Your task to perform on an android device: When is my next appointment? Image 0: 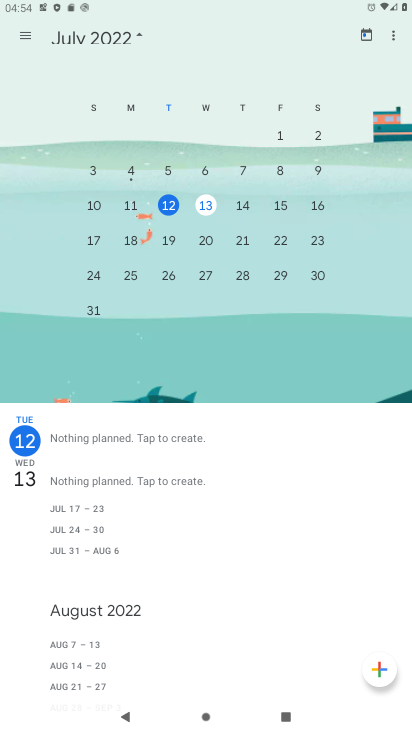
Step 0: press home button
Your task to perform on an android device: When is my next appointment? Image 1: 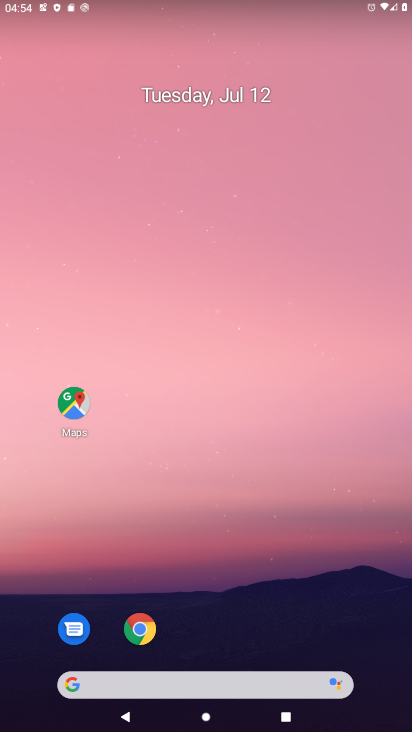
Step 1: drag from (242, 644) to (267, 87)
Your task to perform on an android device: When is my next appointment? Image 2: 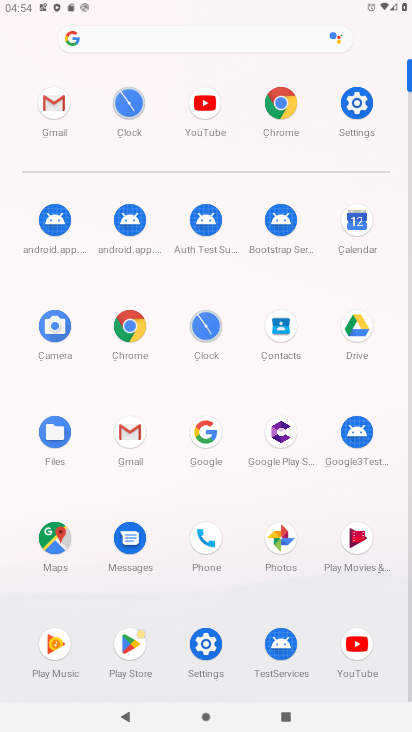
Step 2: click (364, 230)
Your task to perform on an android device: When is my next appointment? Image 3: 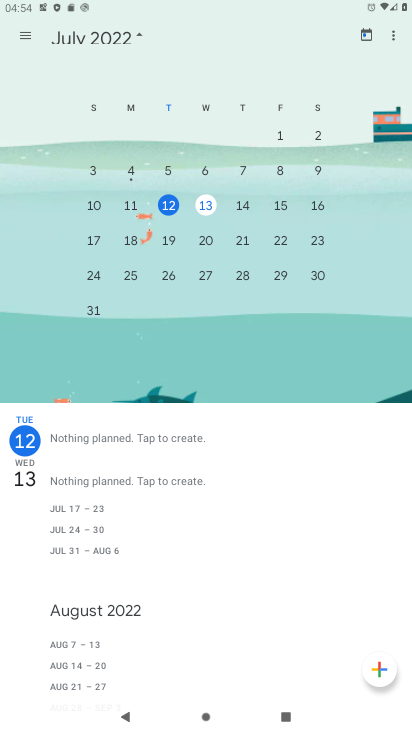
Step 3: click (22, 29)
Your task to perform on an android device: When is my next appointment? Image 4: 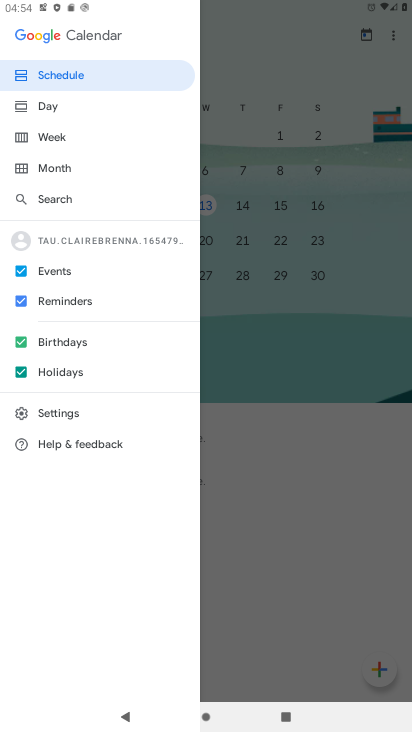
Step 4: click (45, 82)
Your task to perform on an android device: When is my next appointment? Image 5: 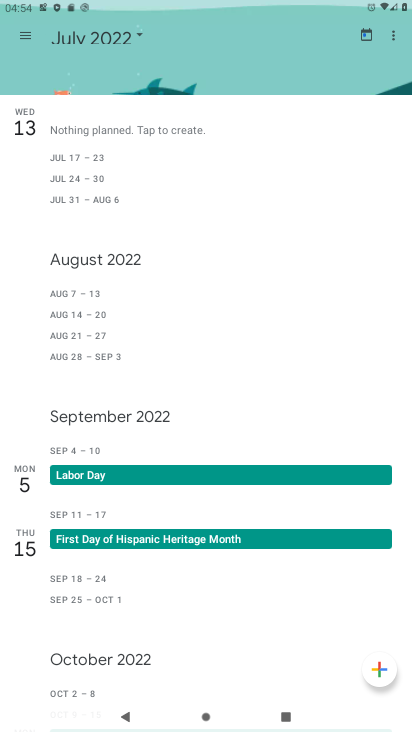
Step 5: task complete